Your task to perform on an android device: turn on location history Image 0: 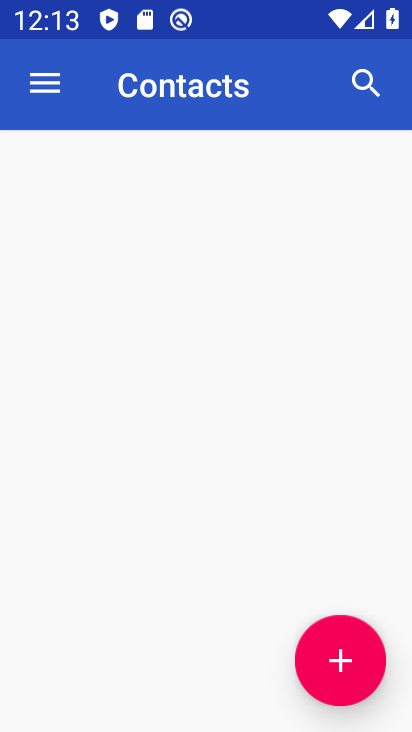
Step 0: press home button
Your task to perform on an android device: turn on location history Image 1: 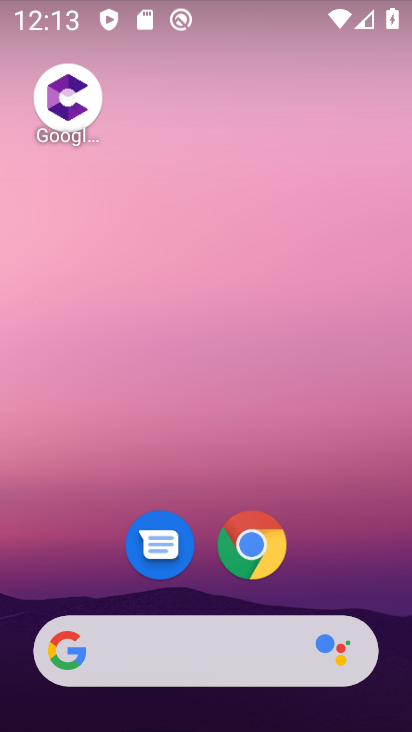
Step 1: drag from (305, 371) to (299, 121)
Your task to perform on an android device: turn on location history Image 2: 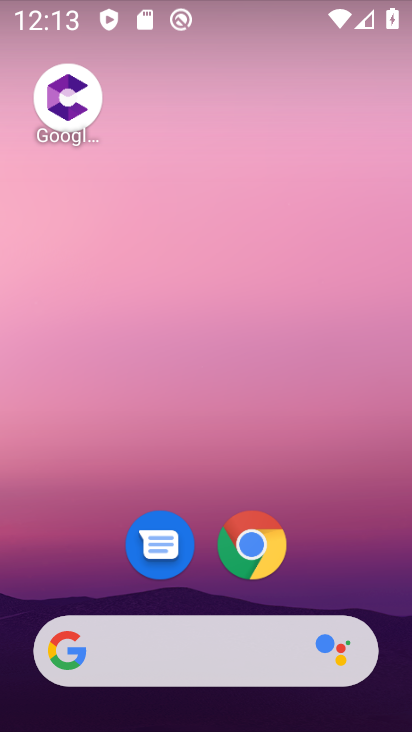
Step 2: drag from (305, 569) to (237, 0)
Your task to perform on an android device: turn on location history Image 3: 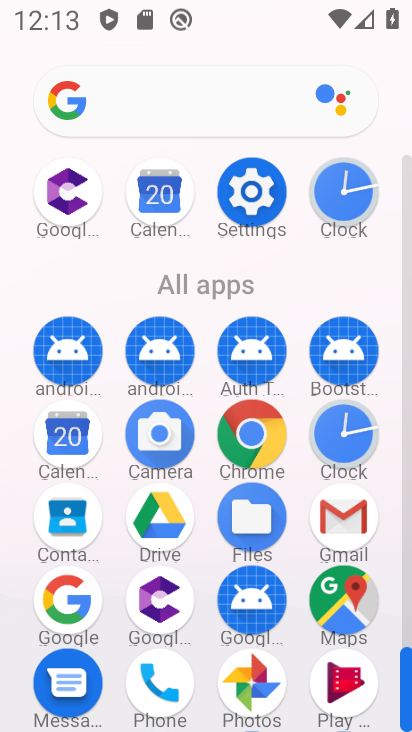
Step 3: click (250, 189)
Your task to perform on an android device: turn on location history Image 4: 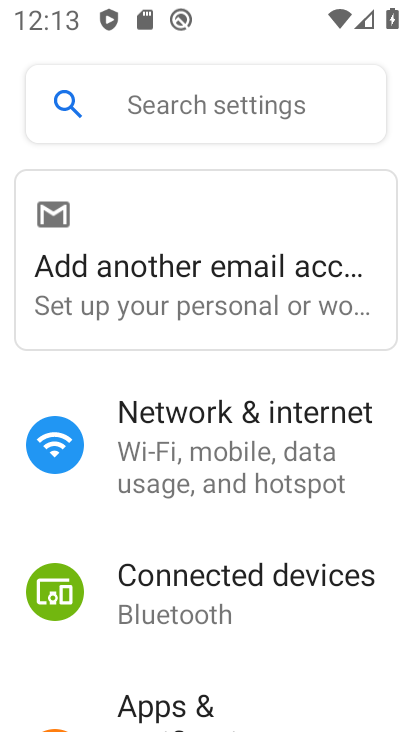
Step 4: drag from (218, 627) to (205, 190)
Your task to perform on an android device: turn on location history Image 5: 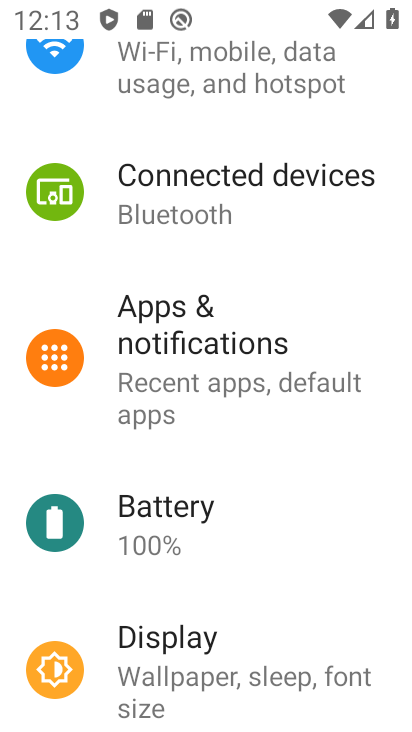
Step 5: drag from (198, 625) to (190, 291)
Your task to perform on an android device: turn on location history Image 6: 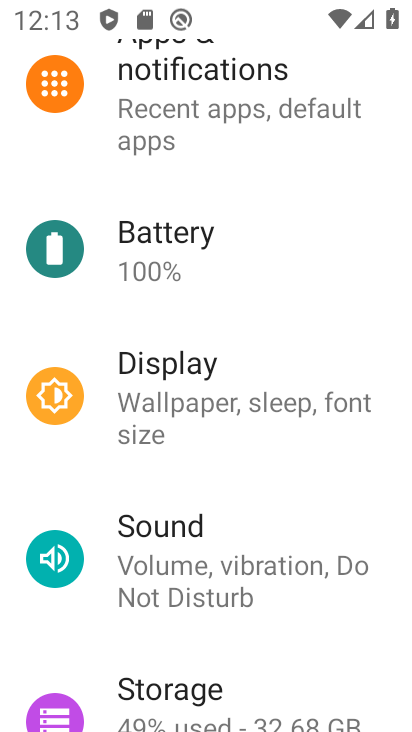
Step 6: drag from (196, 624) to (207, 306)
Your task to perform on an android device: turn on location history Image 7: 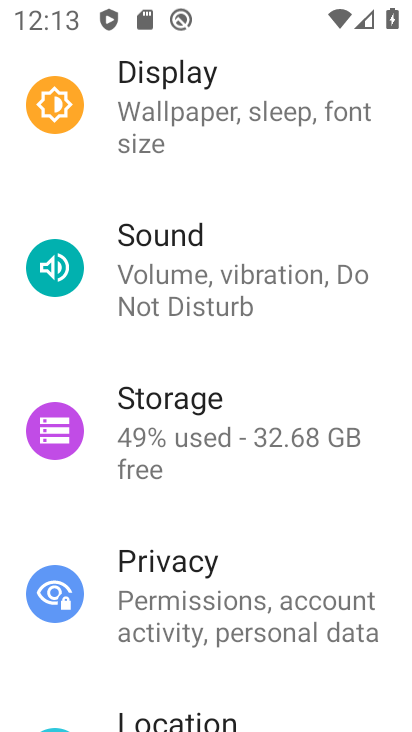
Step 7: click (176, 724)
Your task to perform on an android device: turn on location history Image 8: 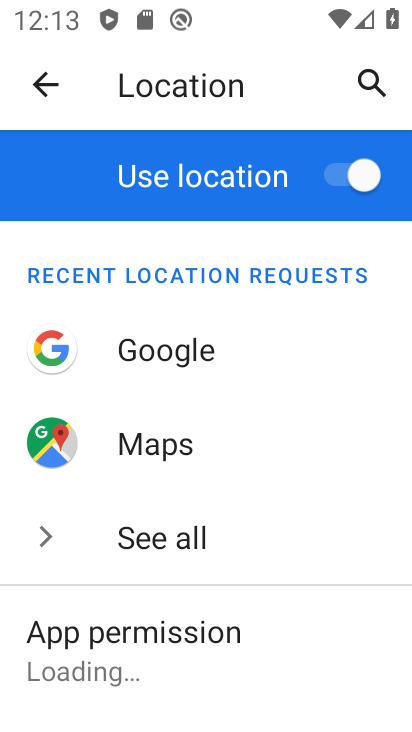
Step 8: task complete